Your task to perform on an android device: Search for vegetarian restaurants on Maps Image 0: 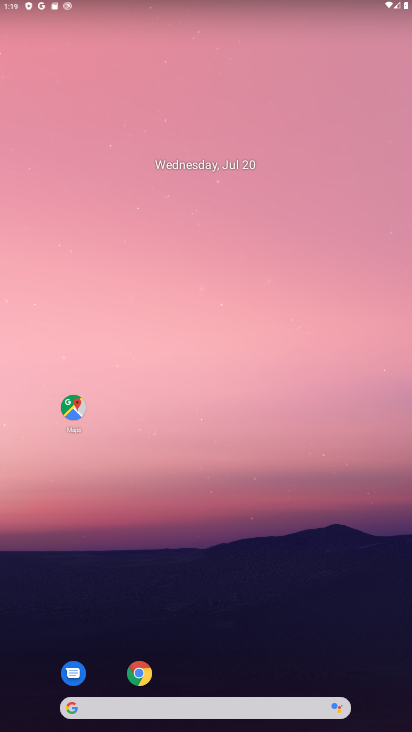
Step 0: click (80, 402)
Your task to perform on an android device: Search for vegetarian restaurants on Maps Image 1: 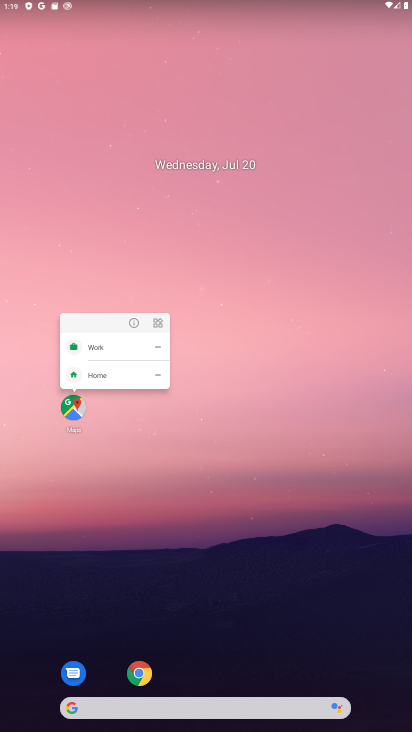
Step 1: click (70, 407)
Your task to perform on an android device: Search for vegetarian restaurants on Maps Image 2: 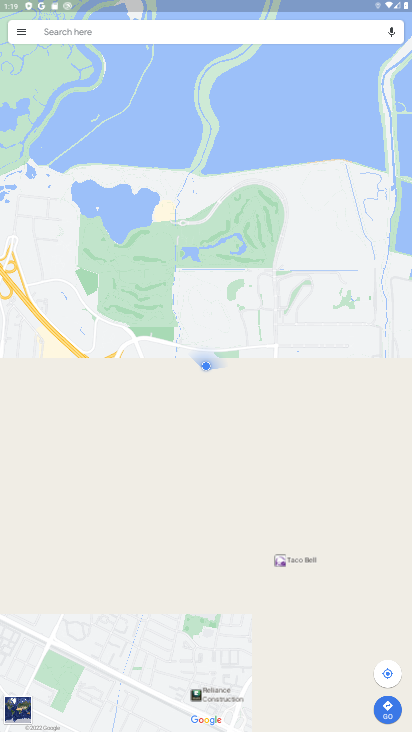
Step 2: click (153, 36)
Your task to perform on an android device: Search for vegetarian restaurants on Maps Image 3: 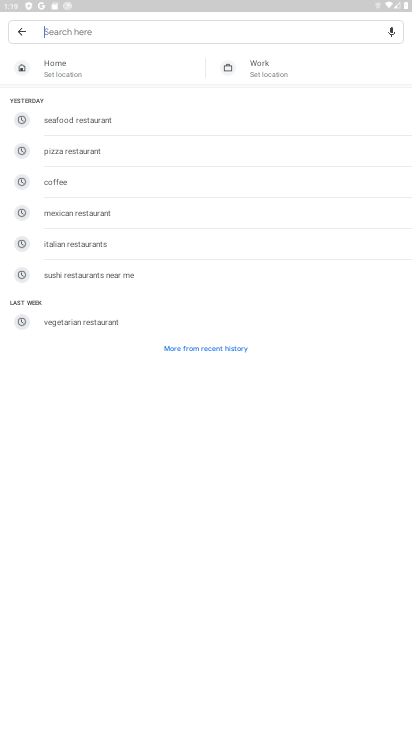
Step 3: type "vegetarian restaurants"
Your task to perform on an android device: Search for vegetarian restaurants on Maps Image 4: 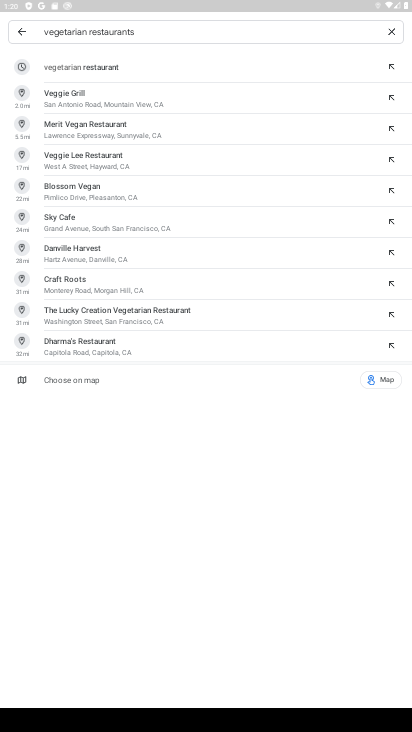
Step 4: click (290, 67)
Your task to perform on an android device: Search for vegetarian restaurants on Maps Image 5: 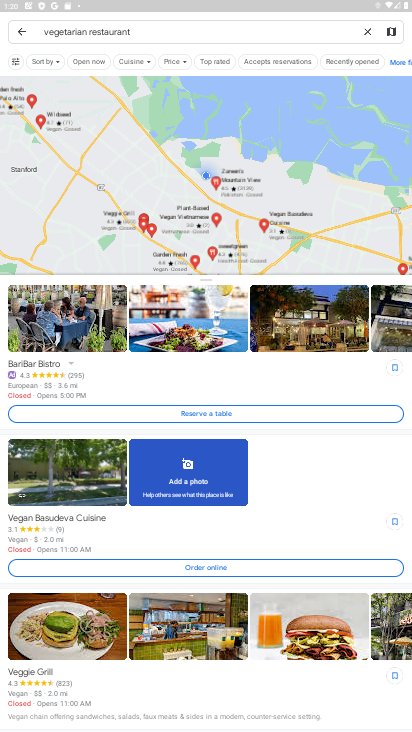
Step 5: task complete